Your task to perform on an android device: snooze an email in the gmail app Image 0: 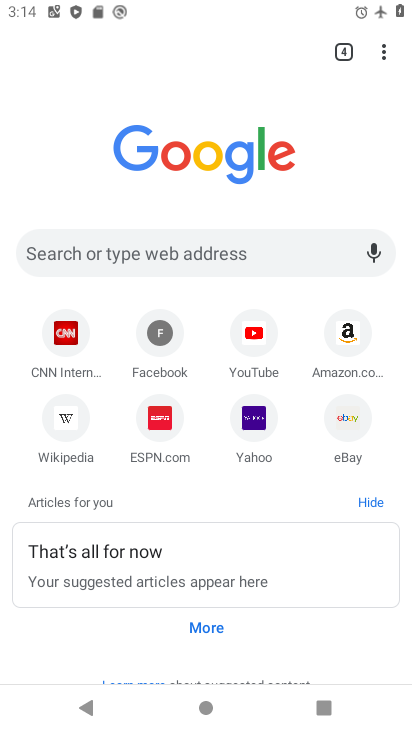
Step 0: press home button
Your task to perform on an android device: snooze an email in the gmail app Image 1: 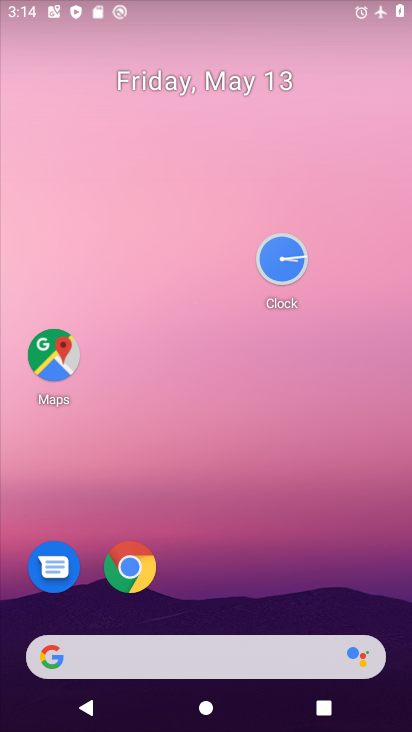
Step 1: drag from (267, 565) to (166, 0)
Your task to perform on an android device: snooze an email in the gmail app Image 2: 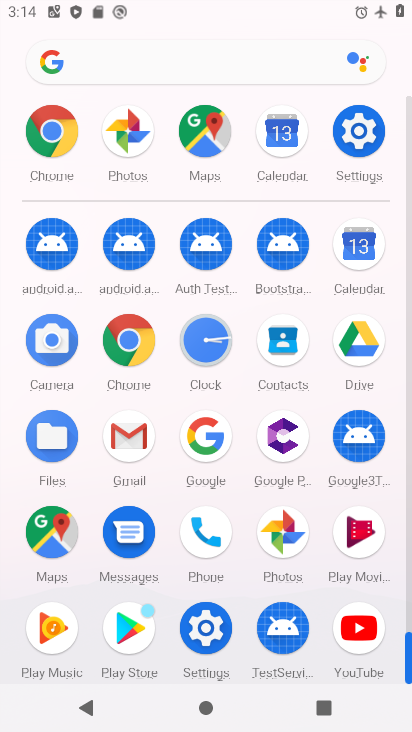
Step 2: click (144, 445)
Your task to perform on an android device: snooze an email in the gmail app Image 3: 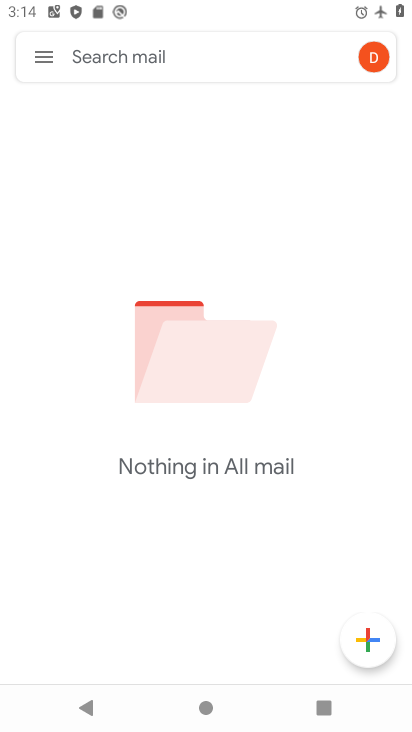
Step 3: click (39, 73)
Your task to perform on an android device: snooze an email in the gmail app Image 4: 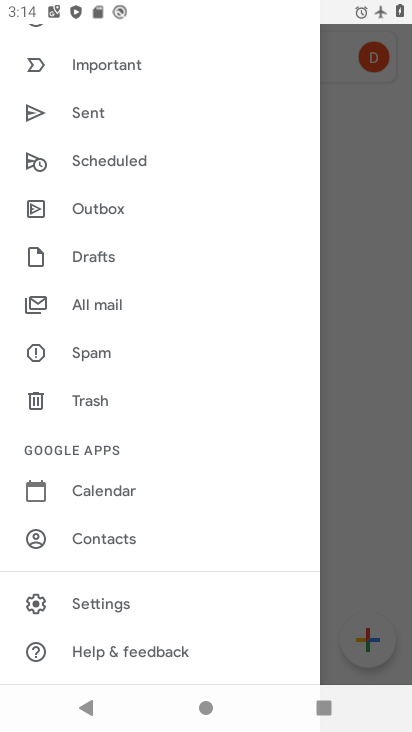
Step 4: drag from (151, 164) to (151, 310)
Your task to perform on an android device: snooze an email in the gmail app Image 5: 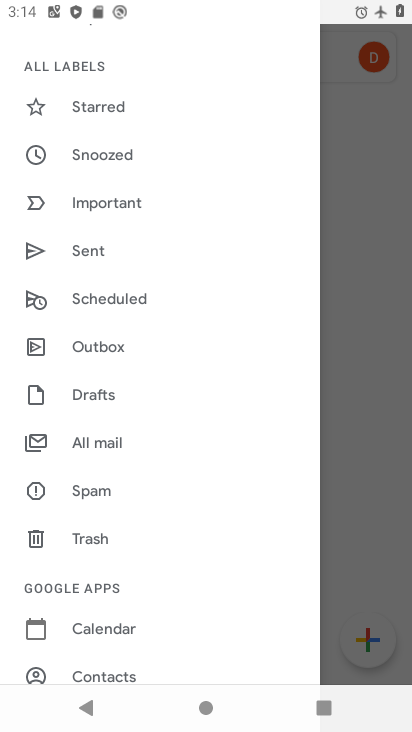
Step 5: click (124, 431)
Your task to perform on an android device: snooze an email in the gmail app Image 6: 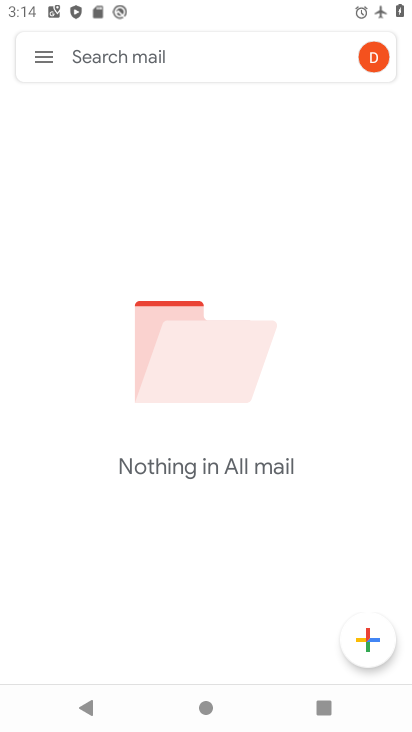
Step 6: task complete